Your task to perform on an android device: Go to wifi settings Image 0: 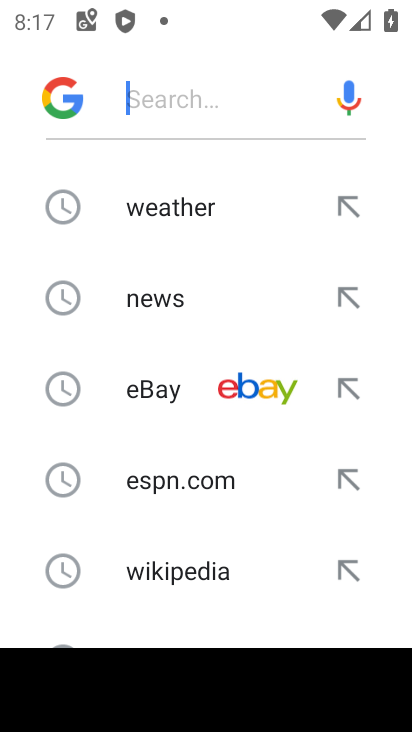
Step 0: press back button
Your task to perform on an android device: Go to wifi settings Image 1: 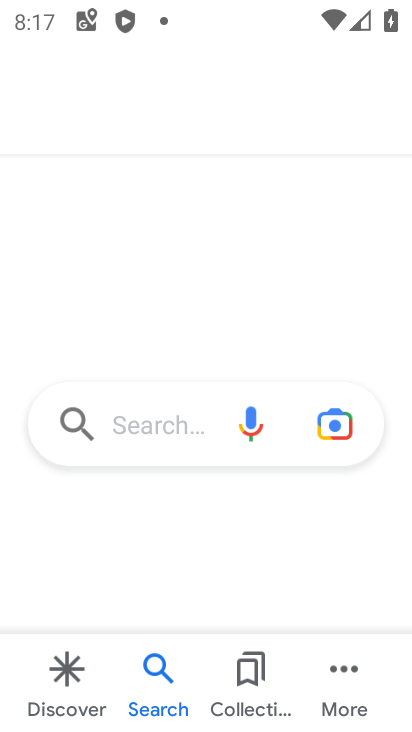
Step 1: press back button
Your task to perform on an android device: Go to wifi settings Image 2: 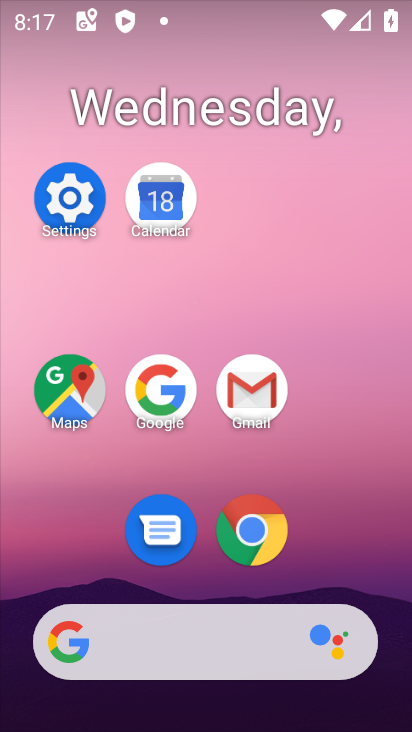
Step 2: click (68, 195)
Your task to perform on an android device: Go to wifi settings Image 3: 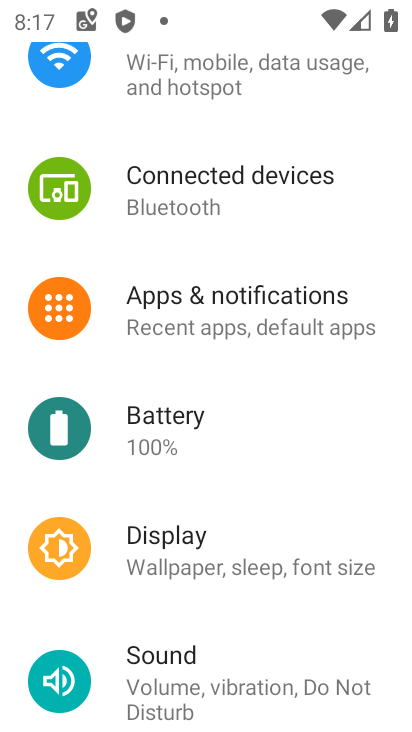
Step 3: drag from (215, 237) to (231, 597)
Your task to perform on an android device: Go to wifi settings Image 4: 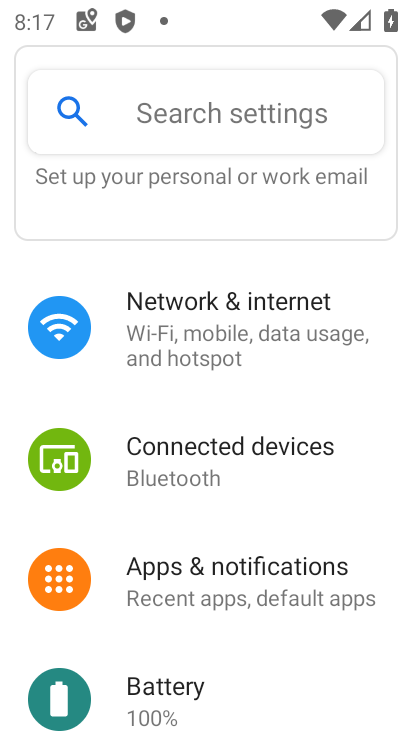
Step 4: click (202, 346)
Your task to perform on an android device: Go to wifi settings Image 5: 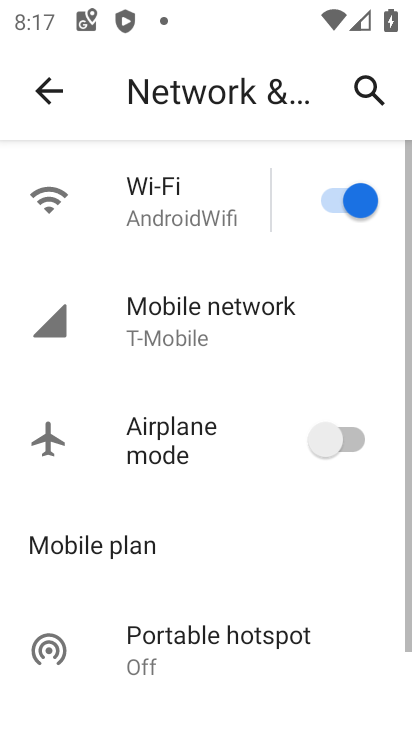
Step 5: click (175, 211)
Your task to perform on an android device: Go to wifi settings Image 6: 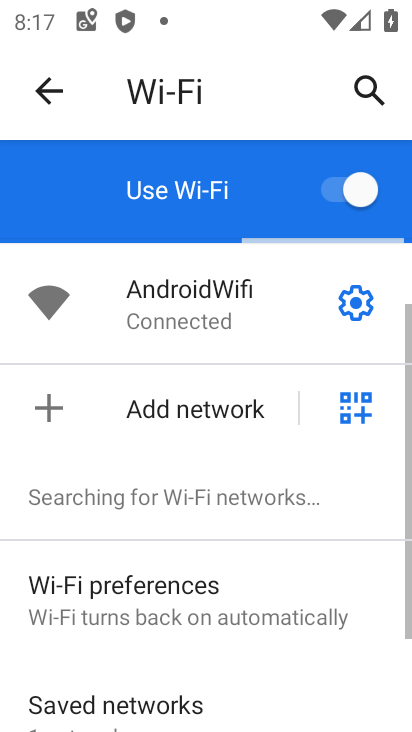
Step 6: click (355, 311)
Your task to perform on an android device: Go to wifi settings Image 7: 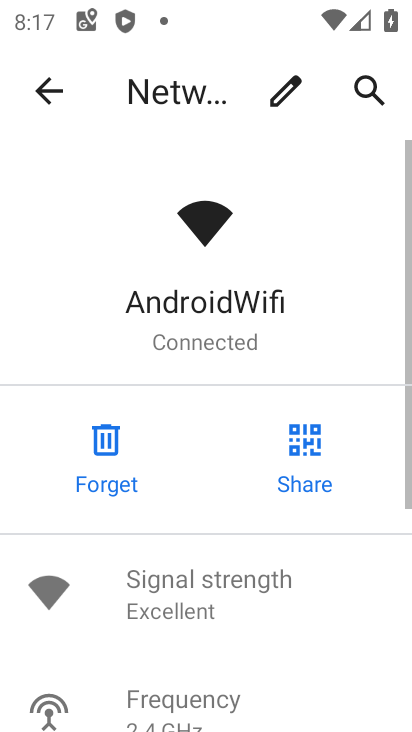
Step 7: task complete